Your task to perform on an android device: visit the assistant section in the google photos Image 0: 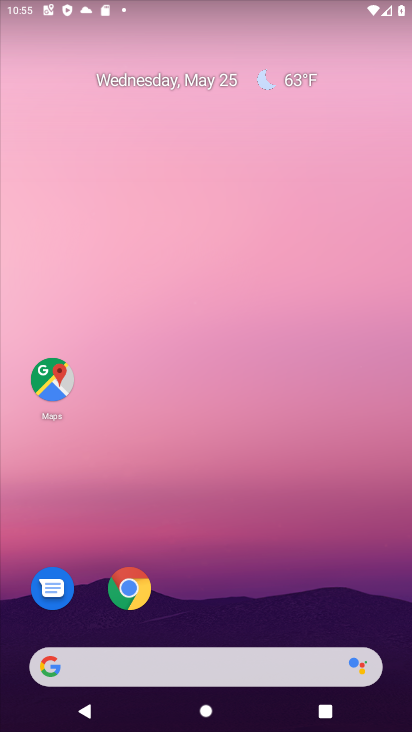
Step 0: drag from (271, 596) to (284, 121)
Your task to perform on an android device: visit the assistant section in the google photos Image 1: 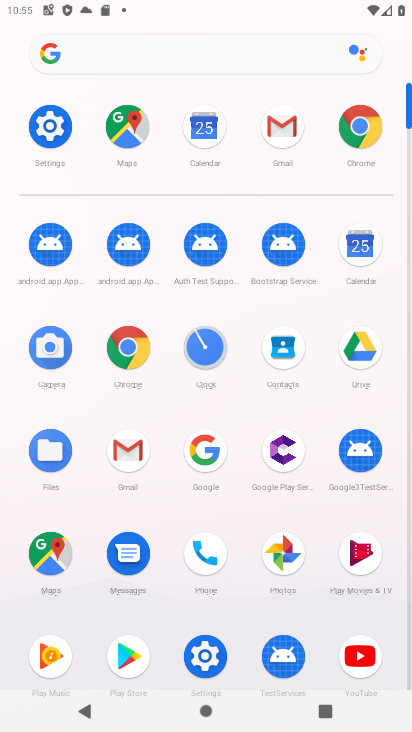
Step 1: click (287, 556)
Your task to perform on an android device: visit the assistant section in the google photos Image 2: 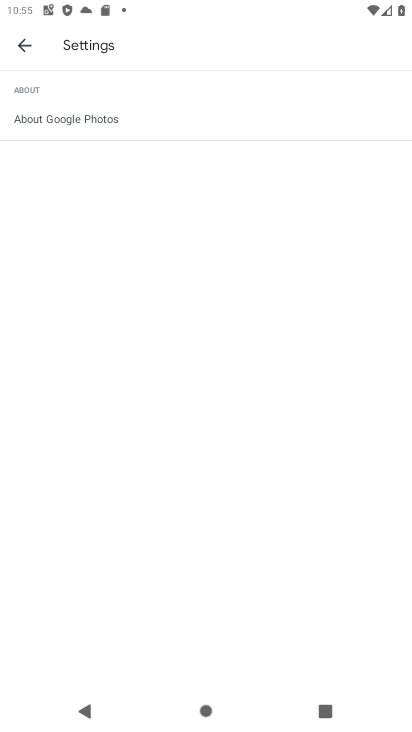
Step 2: click (17, 53)
Your task to perform on an android device: visit the assistant section in the google photos Image 3: 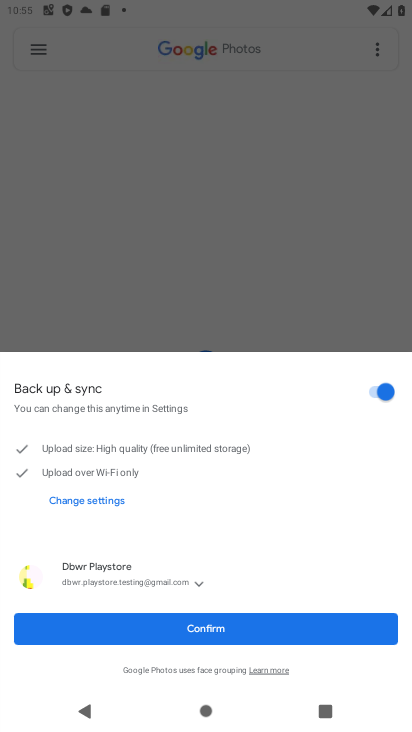
Step 3: click (254, 622)
Your task to perform on an android device: visit the assistant section in the google photos Image 4: 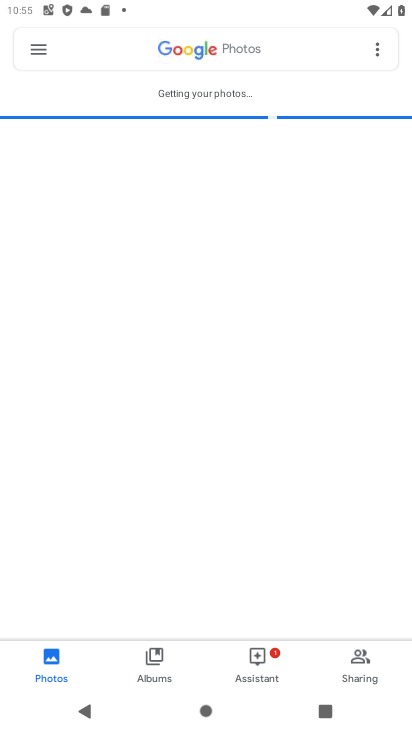
Step 4: click (266, 661)
Your task to perform on an android device: visit the assistant section in the google photos Image 5: 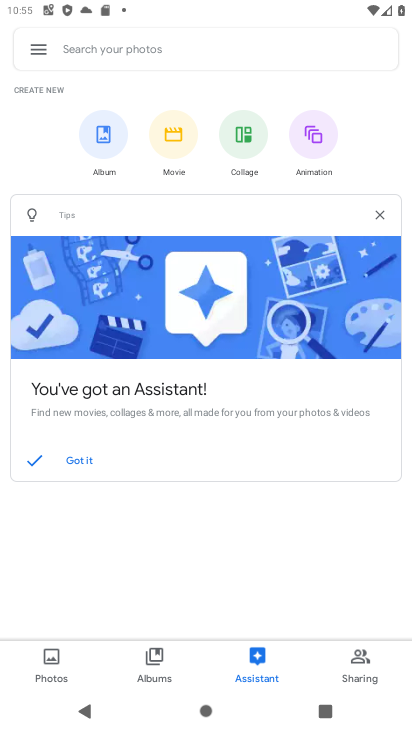
Step 5: task complete